Your task to perform on an android device: Open my contact list Image 0: 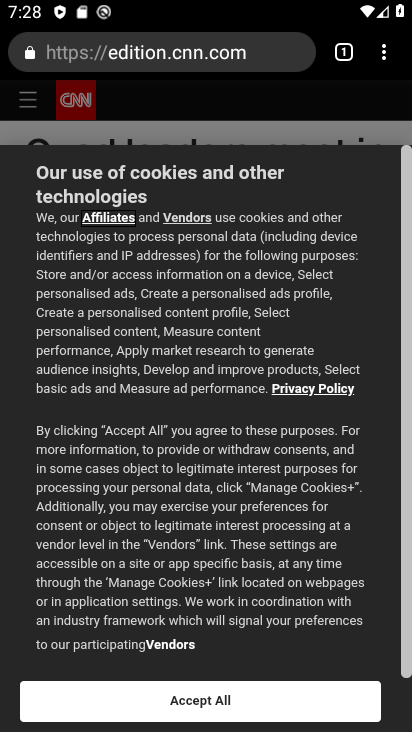
Step 0: press home button
Your task to perform on an android device: Open my contact list Image 1: 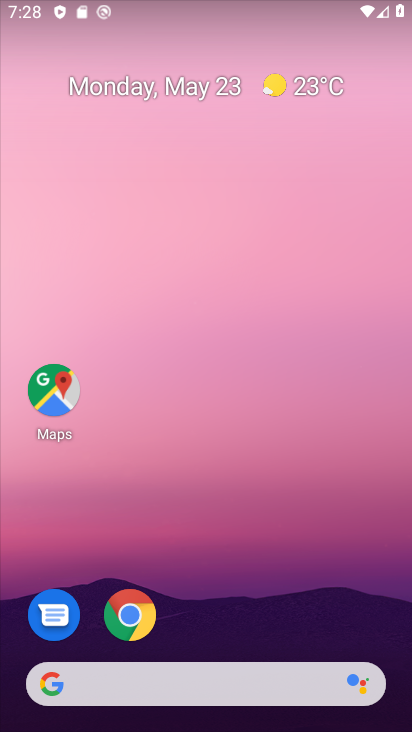
Step 1: drag from (232, 564) to (211, 194)
Your task to perform on an android device: Open my contact list Image 2: 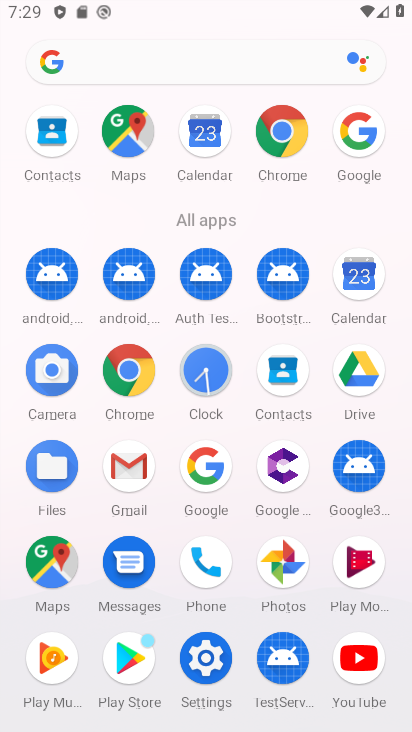
Step 2: click (55, 131)
Your task to perform on an android device: Open my contact list Image 3: 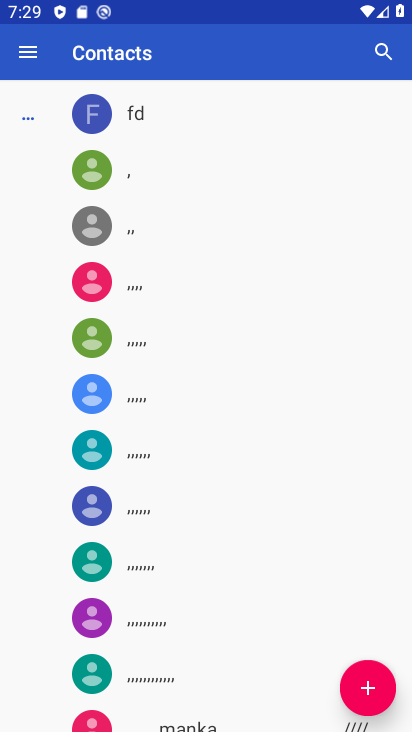
Step 3: task complete